Your task to perform on an android device: turn notification dots on Image 0: 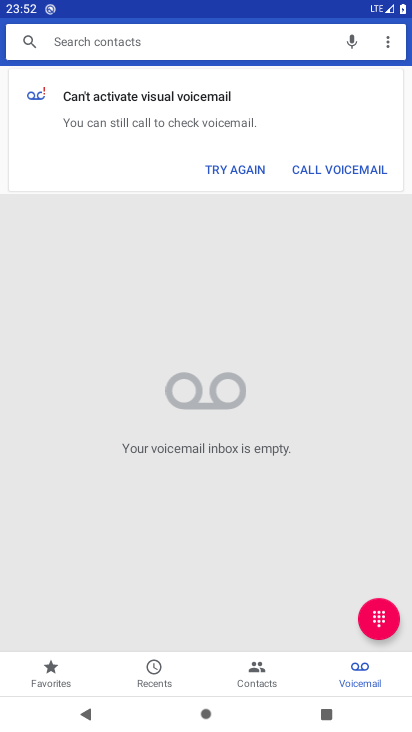
Step 0: press home button
Your task to perform on an android device: turn notification dots on Image 1: 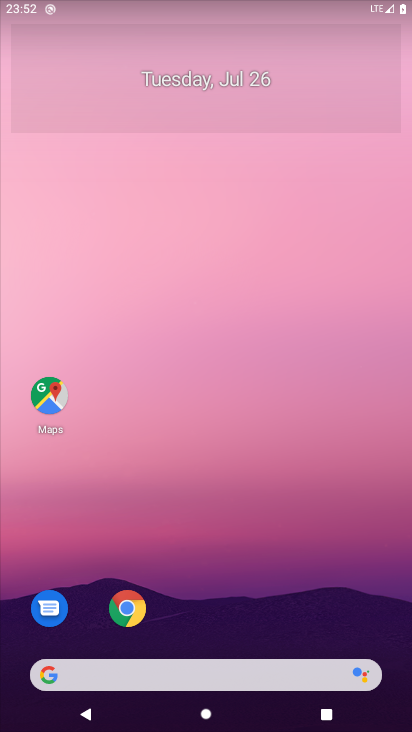
Step 1: drag from (275, 595) to (235, 14)
Your task to perform on an android device: turn notification dots on Image 2: 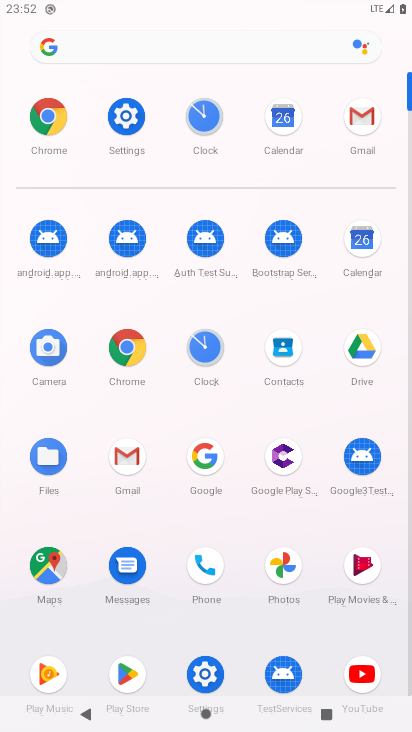
Step 2: click (115, 107)
Your task to perform on an android device: turn notification dots on Image 3: 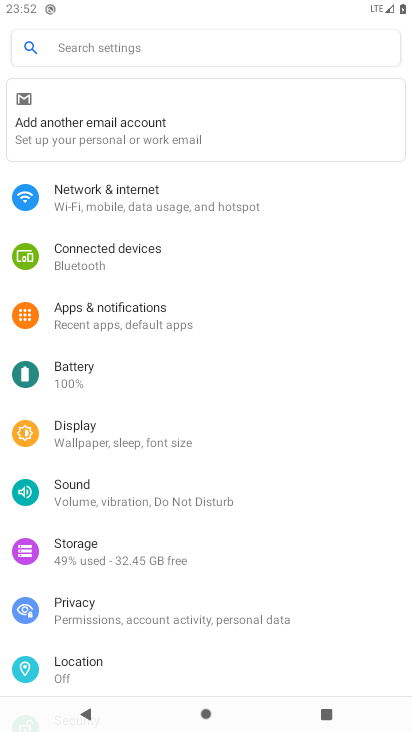
Step 3: click (121, 323)
Your task to perform on an android device: turn notification dots on Image 4: 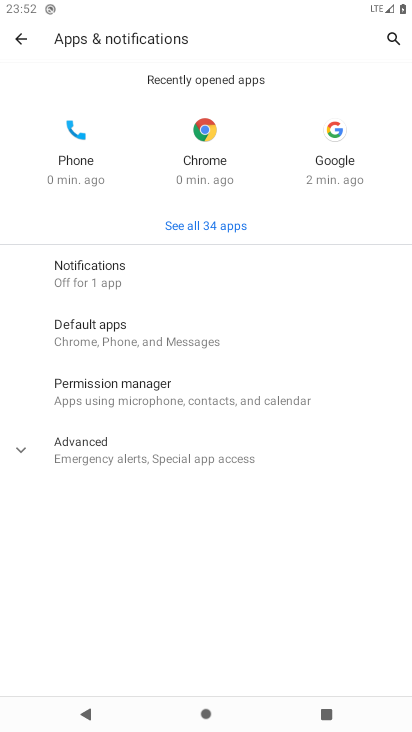
Step 4: click (105, 279)
Your task to perform on an android device: turn notification dots on Image 5: 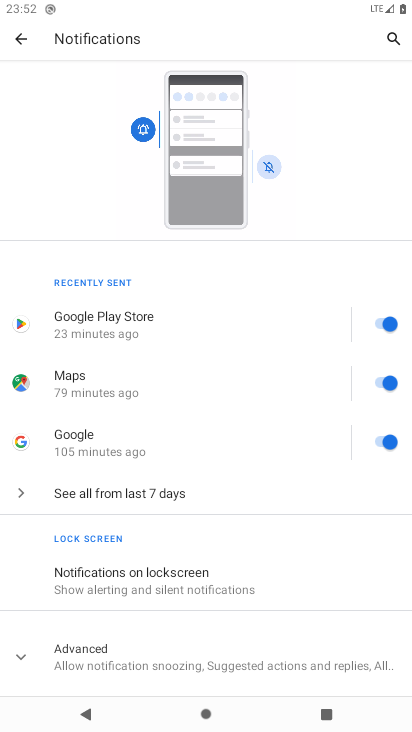
Step 5: click (27, 653)
Your task to perform on an android device: turn notification dots on Image 6: 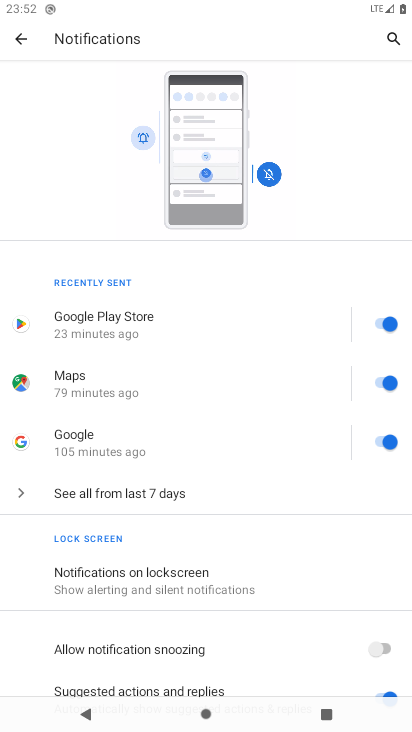
Step 6: task complete